Your task to perform on an android device: Show me productivity apps on the Play Store Image 0: 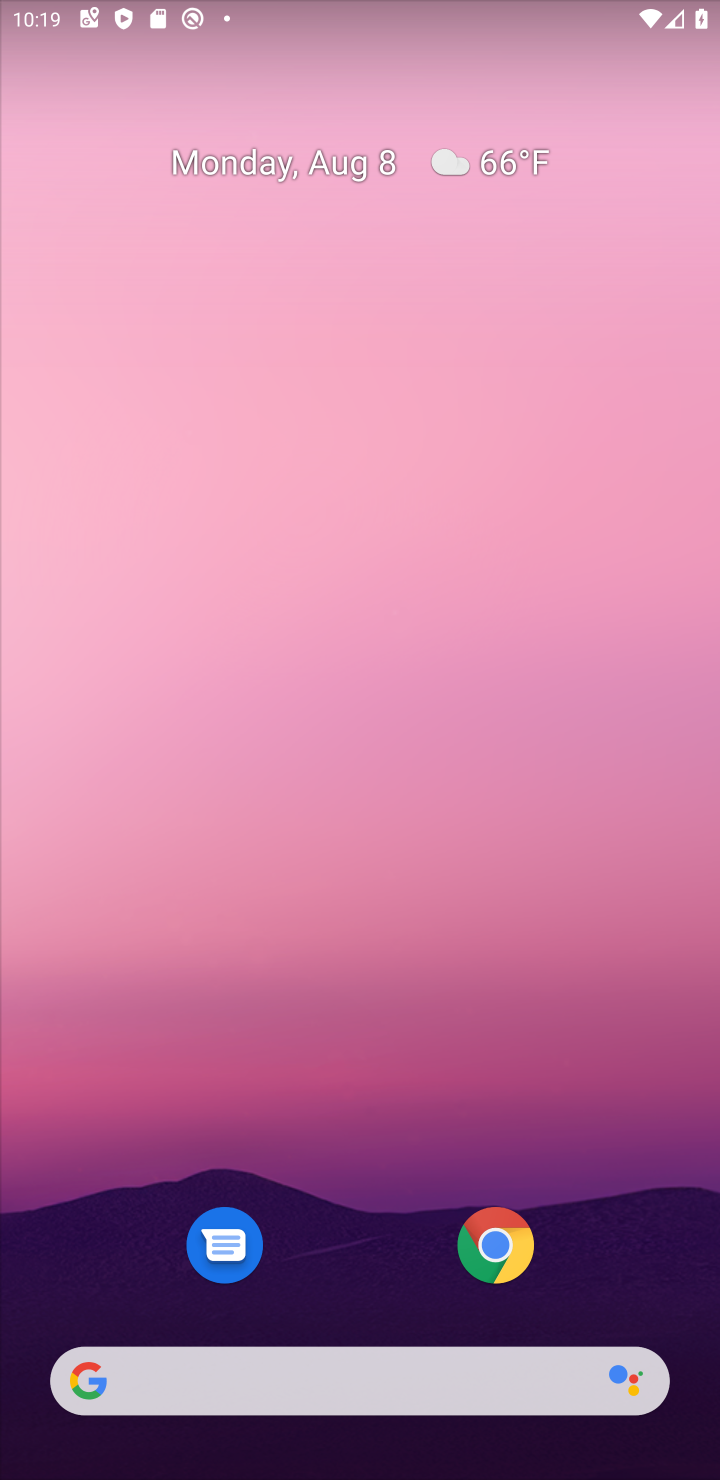
Step 0: drag from (347, 1191) to (327, 297)
Your task to perform on an android device: Show me productivity apps on the Play Store Image 1: 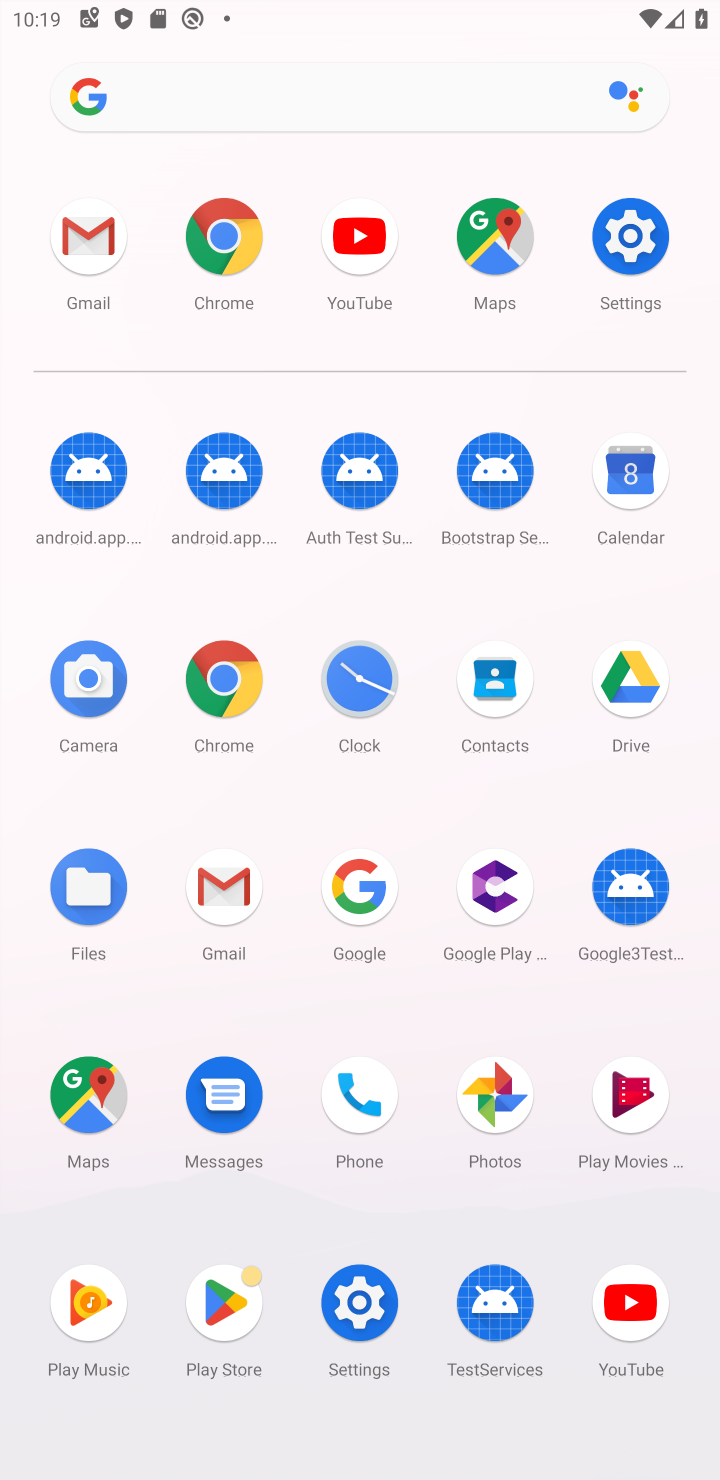
Step 1: click (228, 1301)
Your task to perform on an android device: Show me productivity apps on the Play Store Image 2: 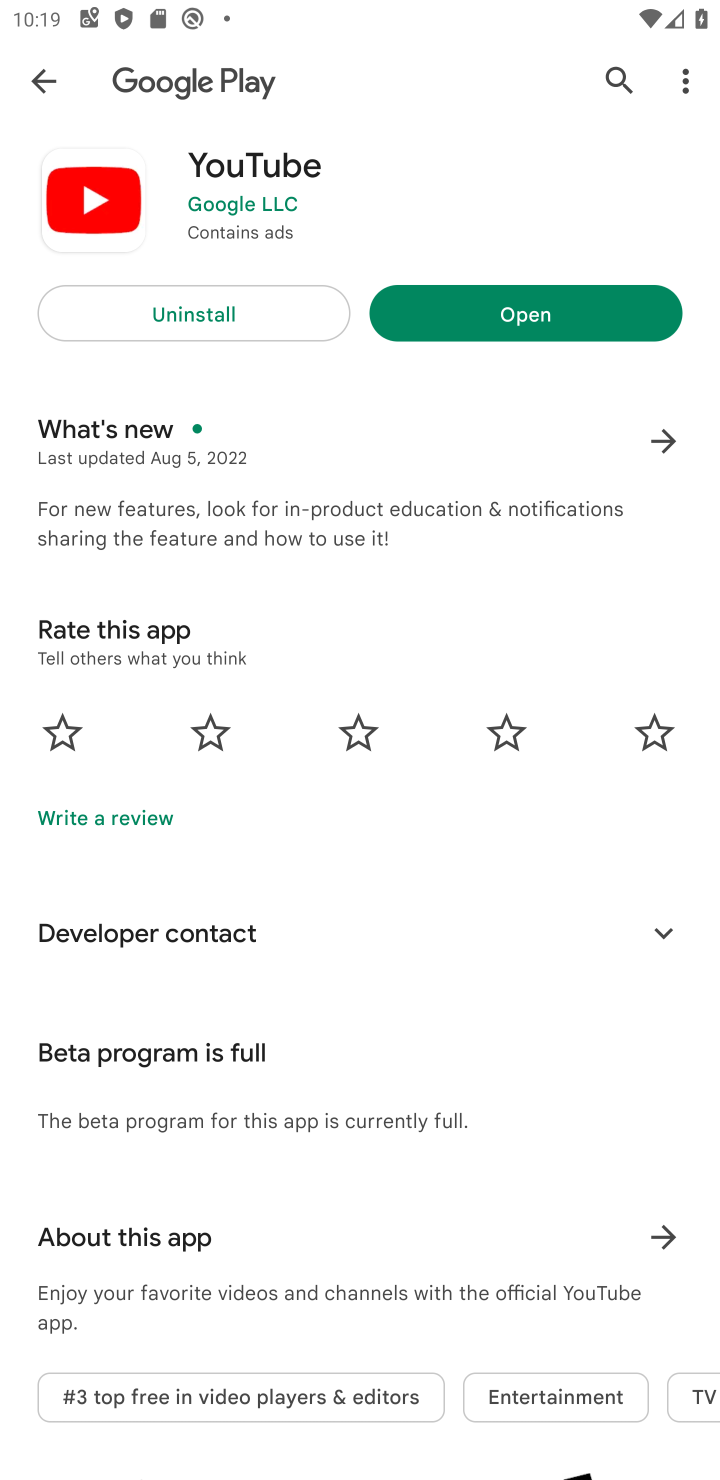
Step 2: click (41, 77)
Your task to perform on an android device: Show me productivity apps on the Play Store Image 3: 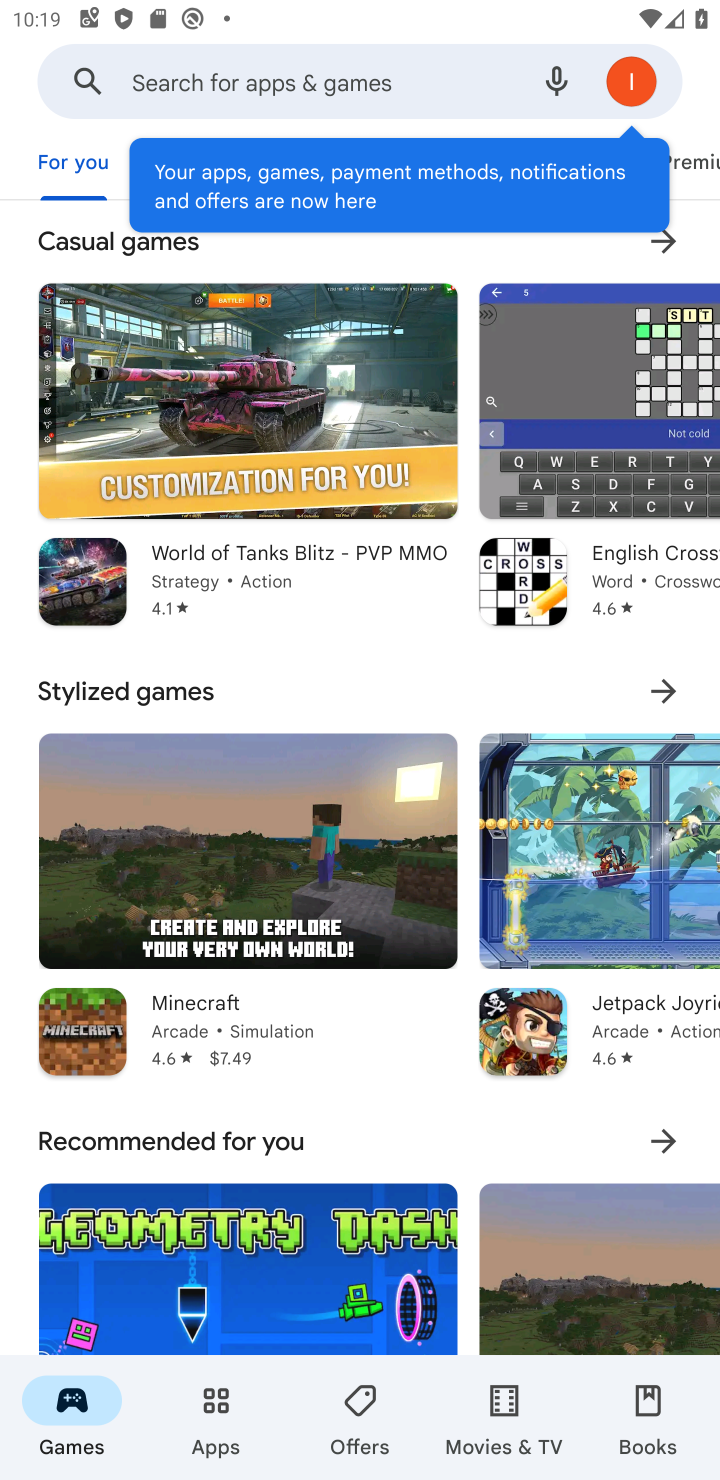
Step 3: click (216, 1403)
Your task to perform on an android device: Show me productivity apps on the Play Store Image 4: 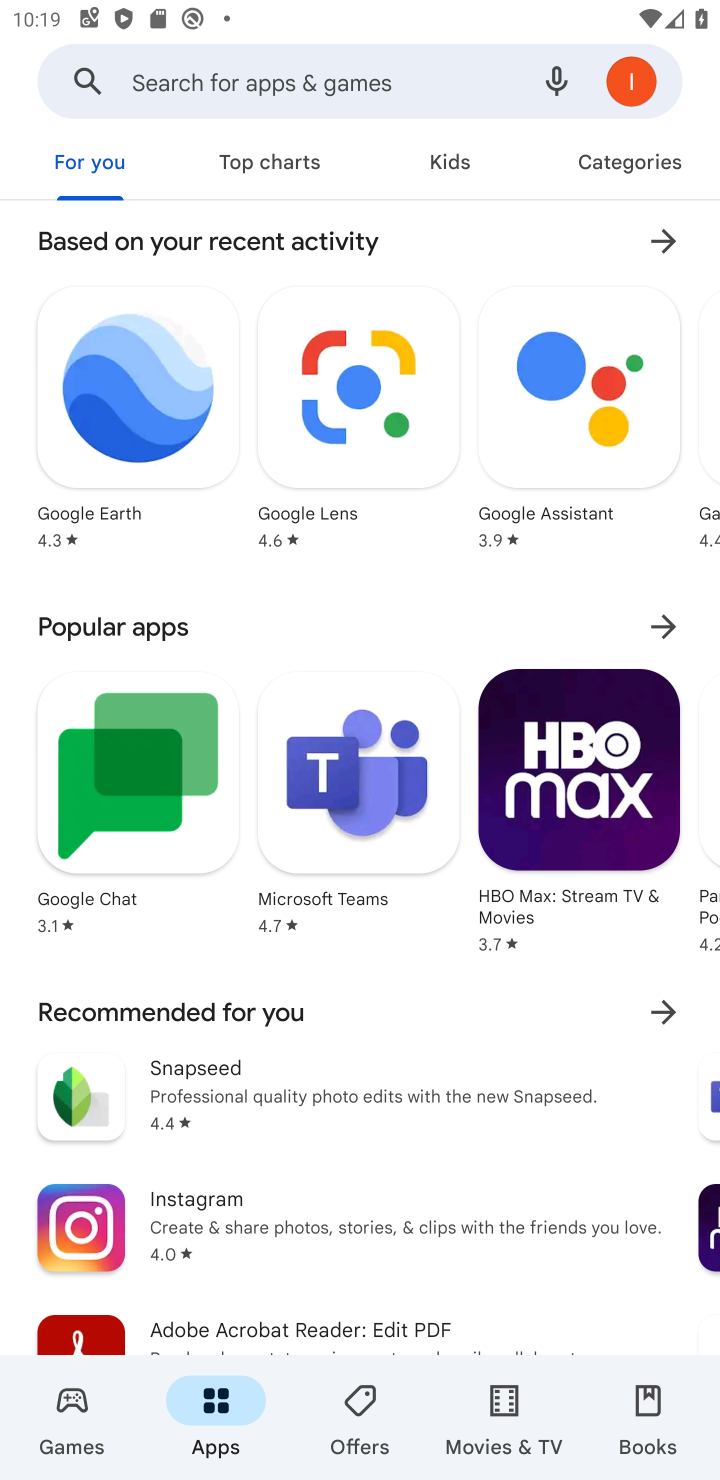
Step 4: task complete